Your task to perform on an android device: open a new tab in the chrome app Image 0: 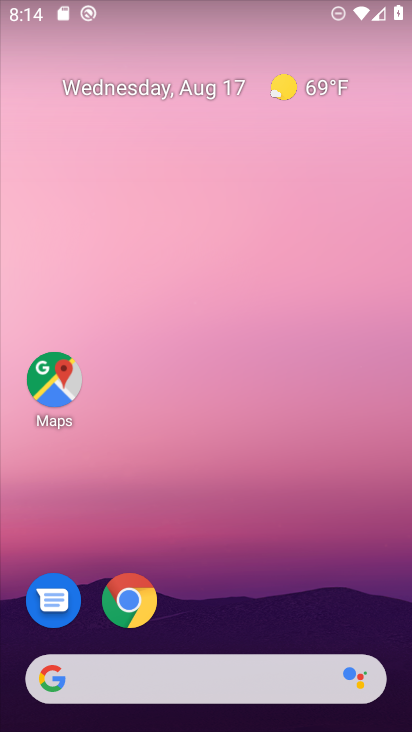
Step 0: click (131, 598)
Your task to perform on an android device: open a new tab in the chrome app Image 1: 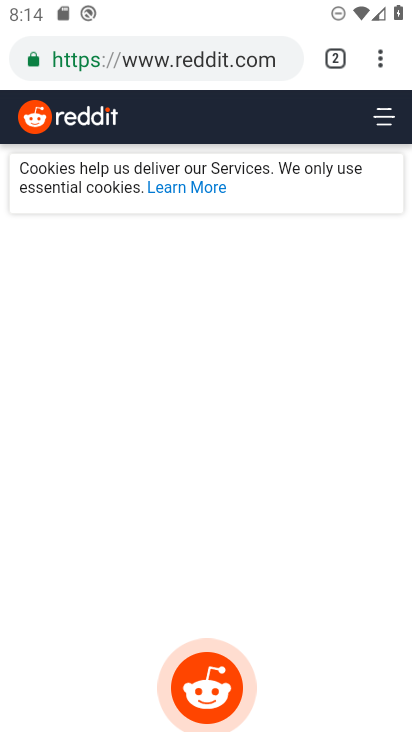
Step 1: click (391, 59)
Your task to perform on an android device: open a new tab in the chrome app Image 2: 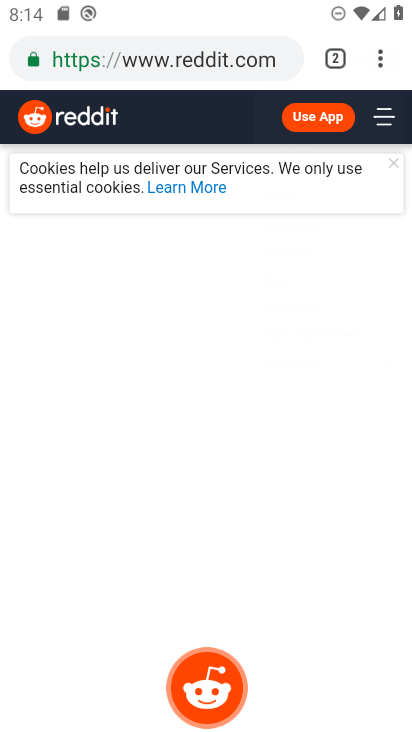
Step 2: click (183, 116)
Your task to perform on an android device: open a new tab in the chrome app Image 3: 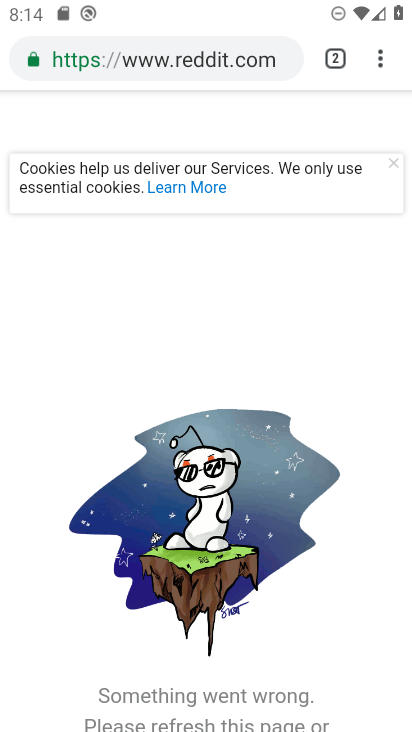
Step 3: click (379, 57)
Your task to perform on an android device: open a new tab in the chrome app Image 4: 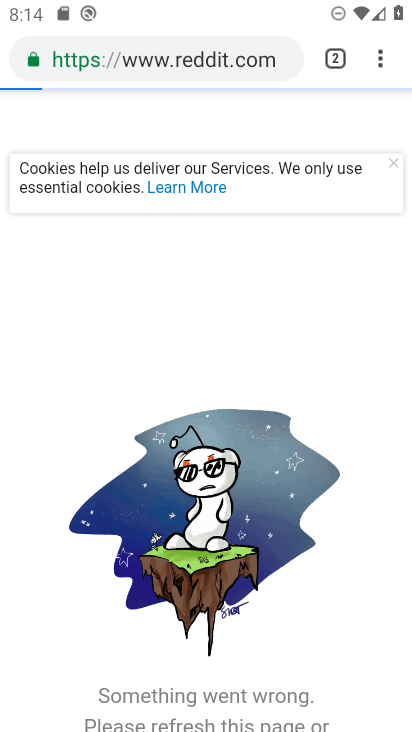
Step 4: click (227, 114)
Your task to perform on an android device: open a new tab in the chrome app Image 5: 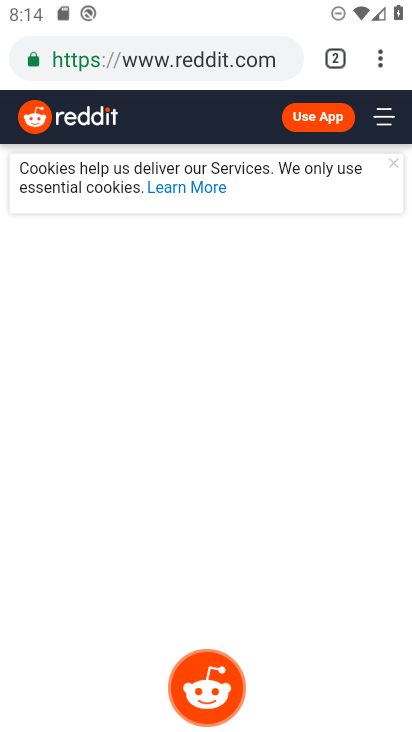
Step 5: task complete